Your task to perform on an android device: show emergency info Image 0: 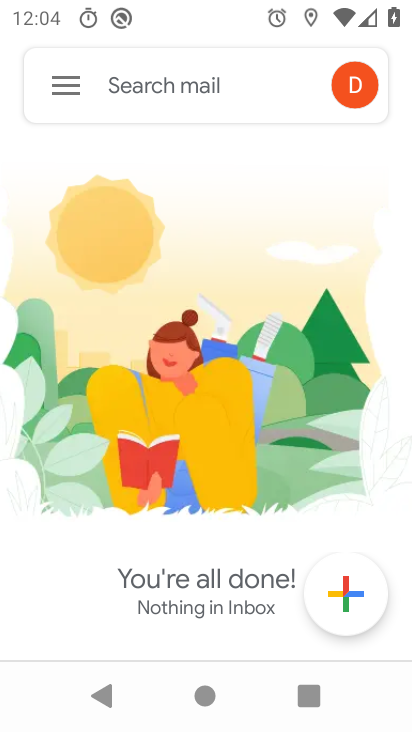
Step 0: press home button
Your task to perform on an android device: show emergency info Image 1: 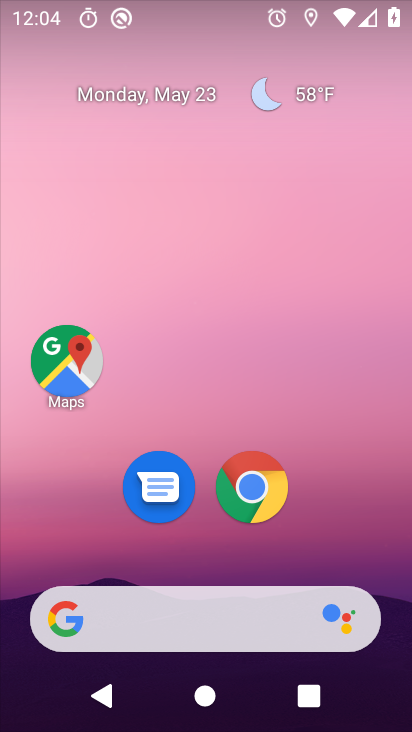
Step 1: drag from (339, 526) to (336, 119)
Your task to perform on an android device: show emergency info Image 2: 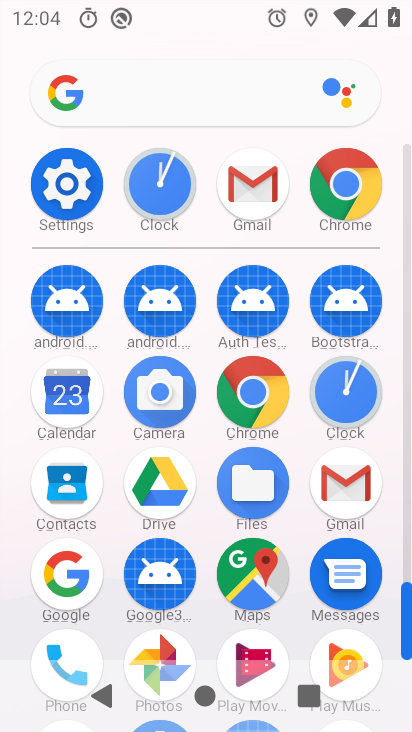
Step 2: click (78, 191)
Your task to perform on an android device: show emergency info Image 3: 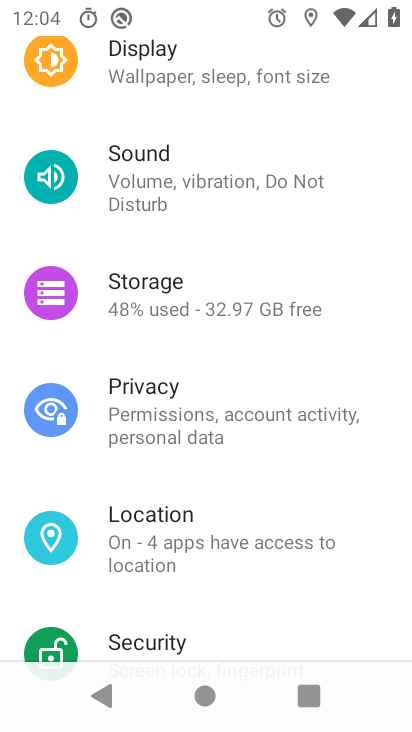
Step 3: drag from (208, 592) to (294, 183)
Your task to perform on an android device: show emergency info Image 4: 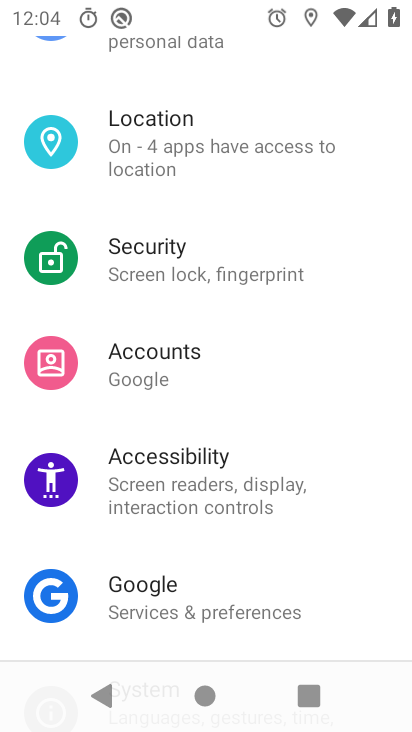
Step 4: drag from (267, 591) to (335, 176)
Your task to perform on an android device: show emergency info Image 5: 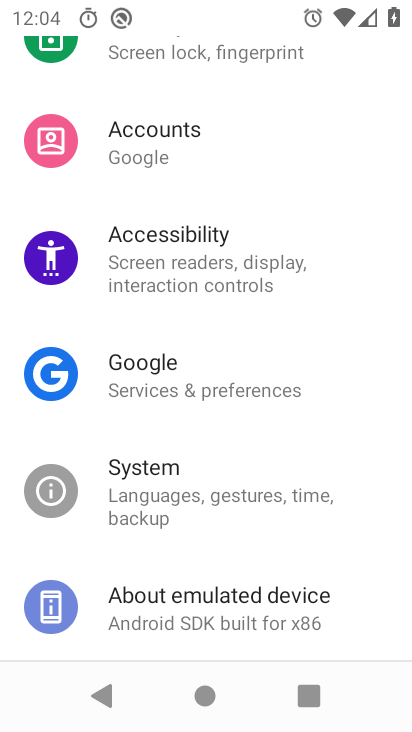
Step 5: click (231, 610)
Your task to perform on an android device: show emergency info Image 6: 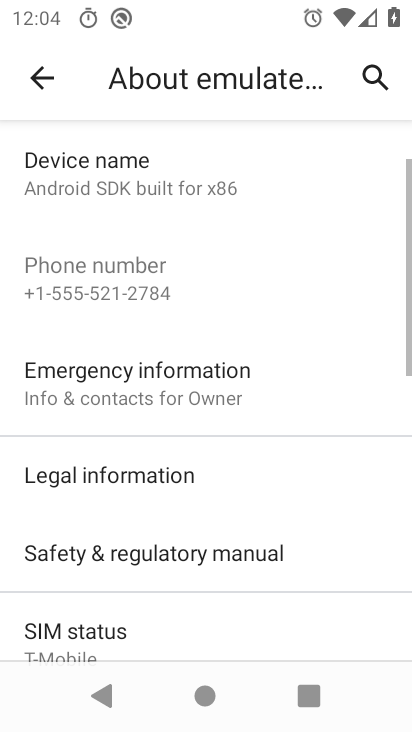
Step 6: click (207, 387)
Your task to perform on an android device: show emergency info Image 7: 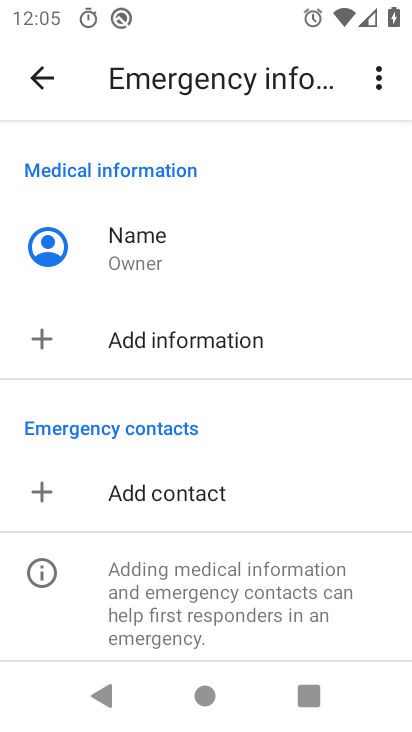
Step 7: task complete